Your task to perform on an android device: allow notifications from all sites in the chrome app Image 0: 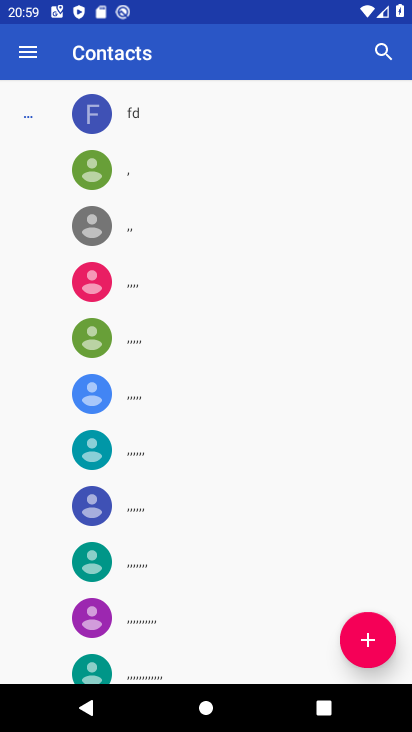
Step 0: press home button
Your task to perform on an android device: allow notifications from all sites in the chrome app Image 1: 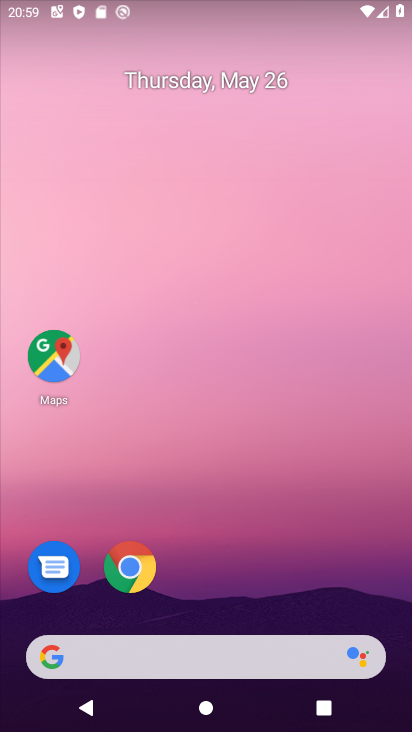
Step 1: click (137, 563)
Your task to perform on an android device: allow notifications from all sites in the chrome app Image 2: 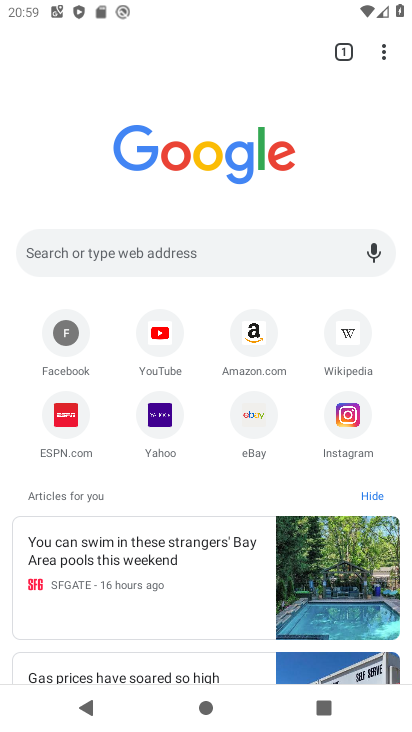
Step 2: click (388, 49)
Your task to perform on an android device: allow notifications from all sites in the chrome app Image 3: 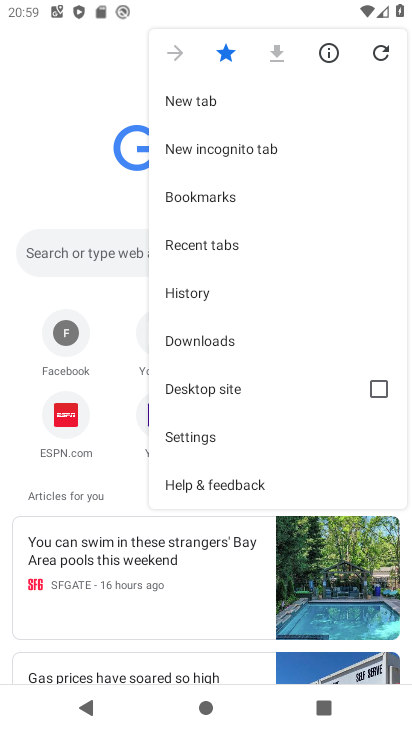
Step 3: click (182, 436)
Your task to perform on an android device: allow notifications from all sites in the chrome app Image 4: 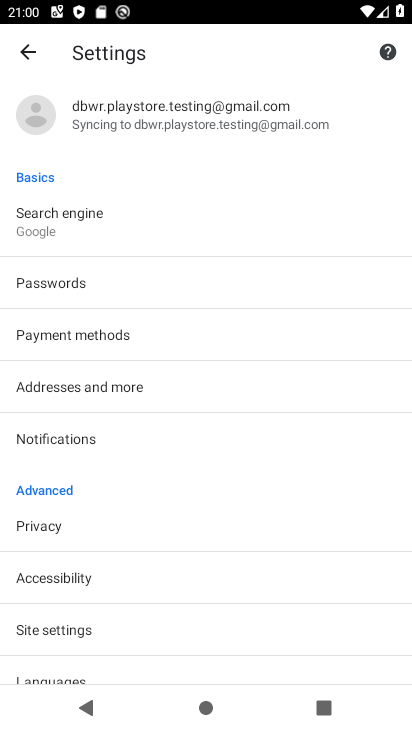
Step 4: click (80, 434)
Your task to perform on an android device: allow notifications from all sites in the chrome app Image 5: 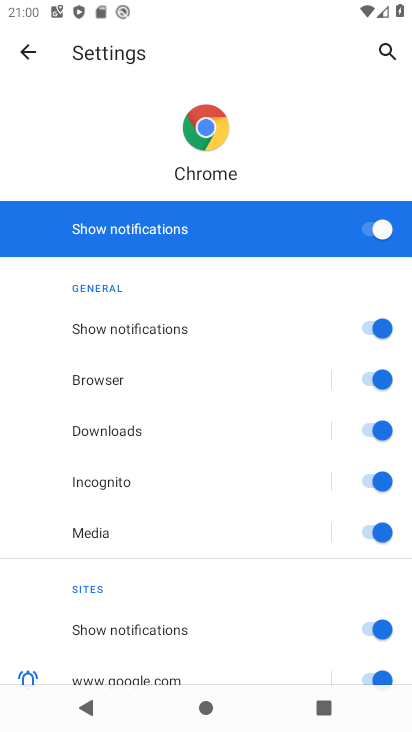
Step 5: task complete